Your task to perform on an android device: Open wifi settings Image 0: 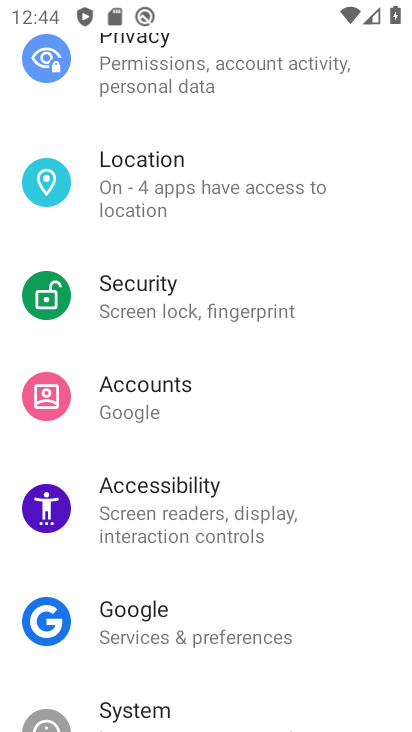
Step 0: press home button
Your task to perform on an android device: Open wifi settings Image 1: 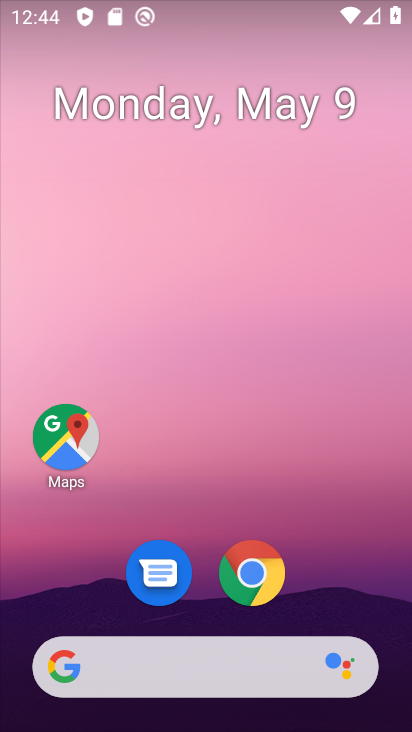
Step 1: drag from (201, 426) to (41, 63)
Your task to perform on an android device: Open wifi settings Image 2: 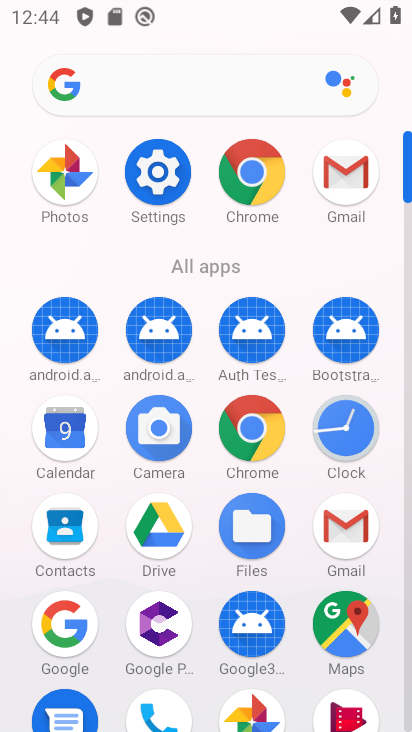
Step 2: click (154, 145)
Your task to perform on an android device: Open wifi settings Image 3: 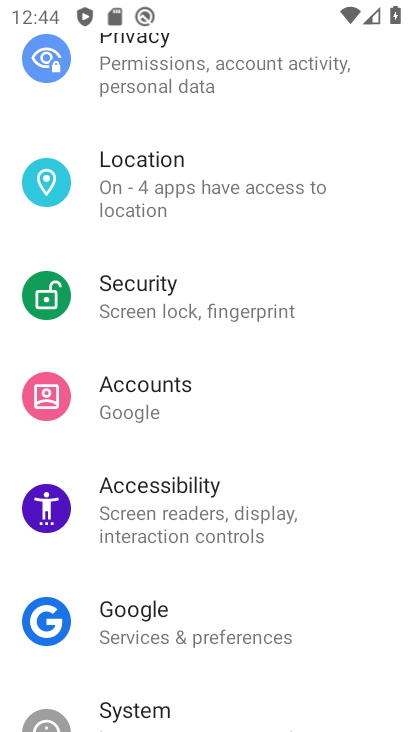
Step 3: drag from (160, 450) to (156, 571)
Your task to perform on an android device: Open wifi settings Image 4: 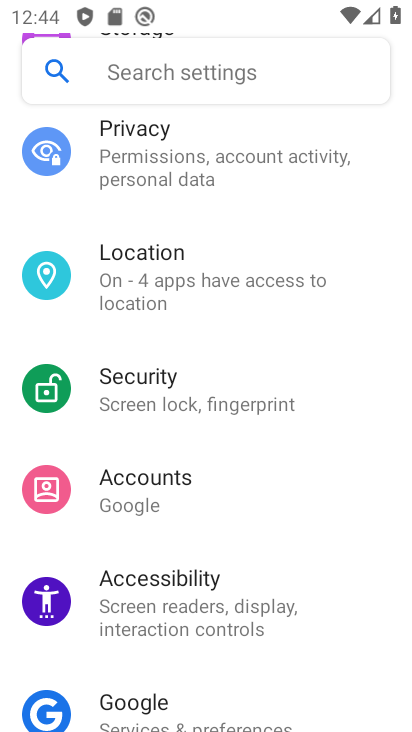
Step 4: drag from (178, 170) to (196, 713)
Your task to perform on an android device: Open wifi settings Image 5: 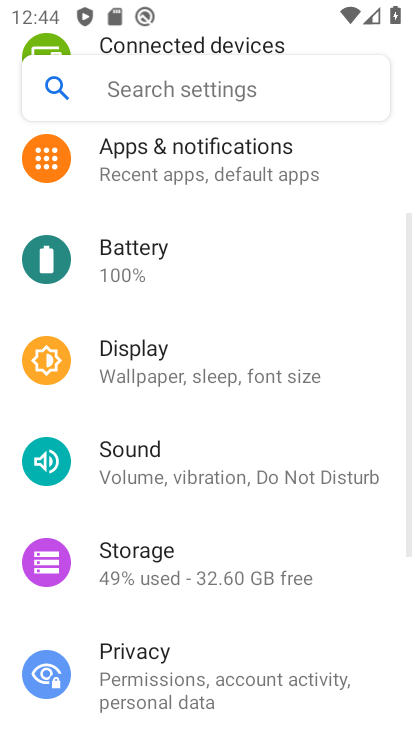
Step 5: drag from (169, 233) to (145, 637)
Your task to perform on an android device: Open wifi settings Image 6: 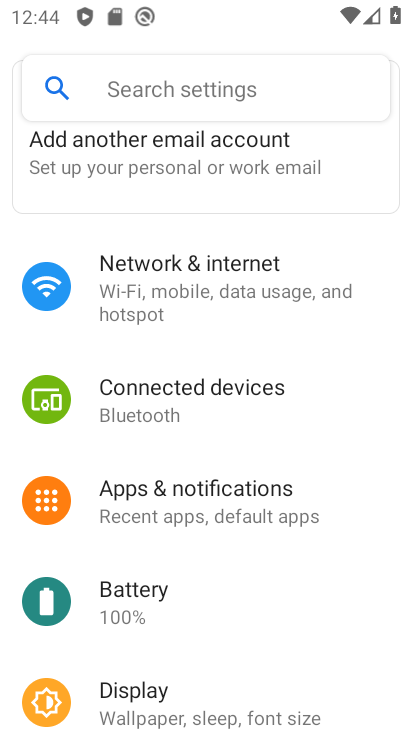
Step 6: click (175, 296)
Your task to perform on an android device: Open wifi settings Image 7: 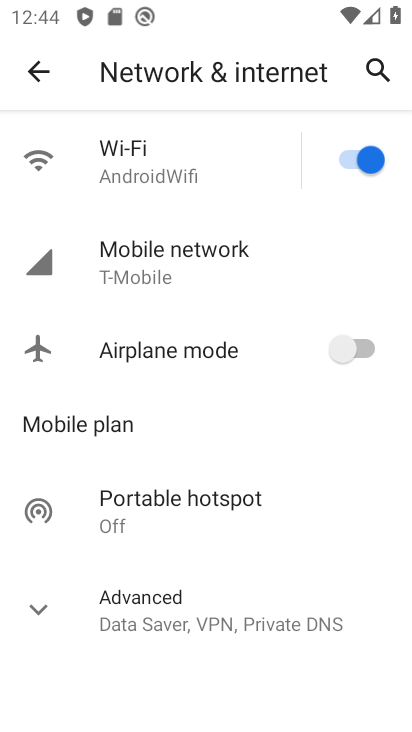
Step 7: click (64, 169)
Your task to perform on an android device: Open wifi settings Image 8: 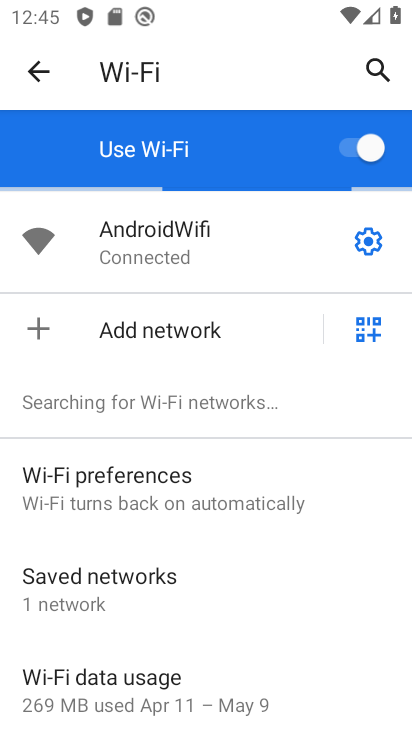
Step 8: task complete